Your task to perform on an android device: Go to eBay Image 0: 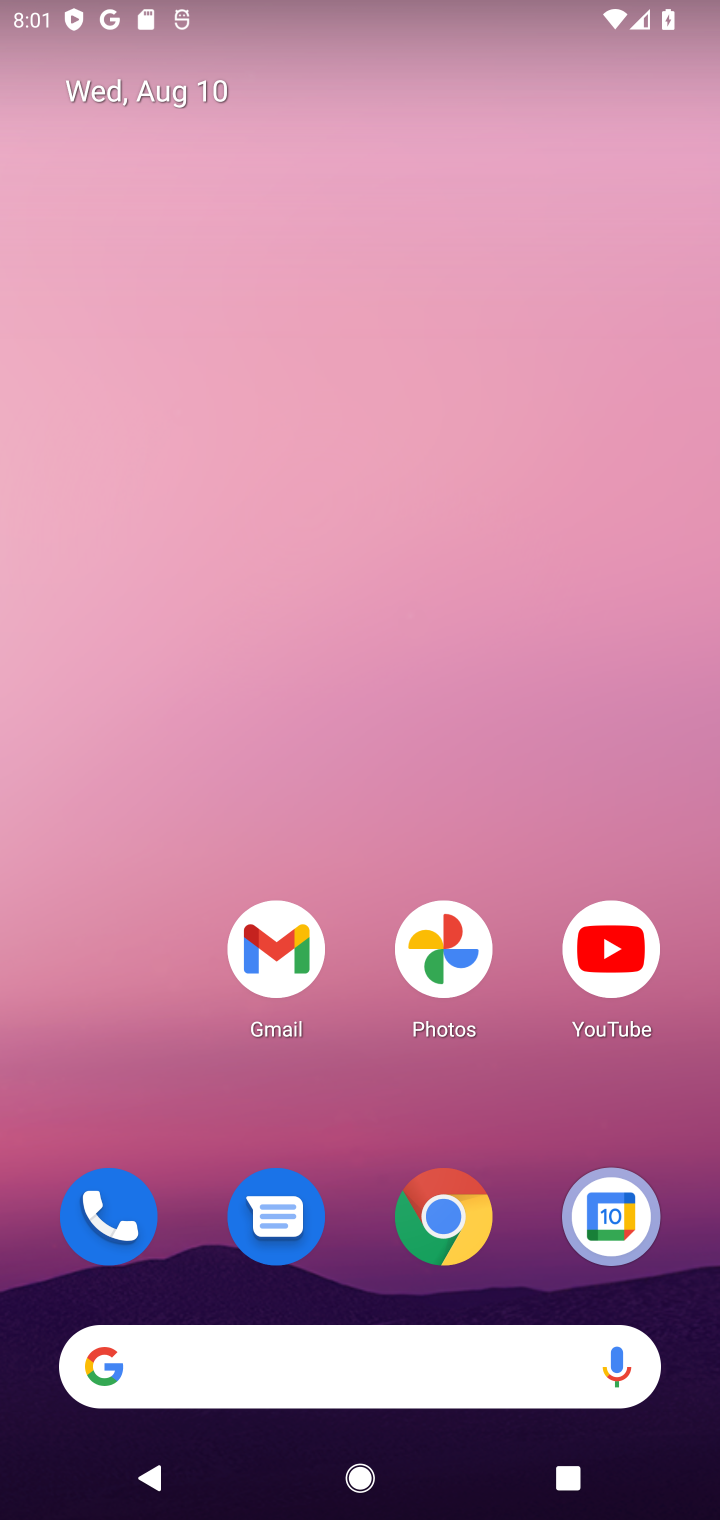
Step 0: click (442, 1222)
Your task to perform on an android device: Go to eBay Image 1: 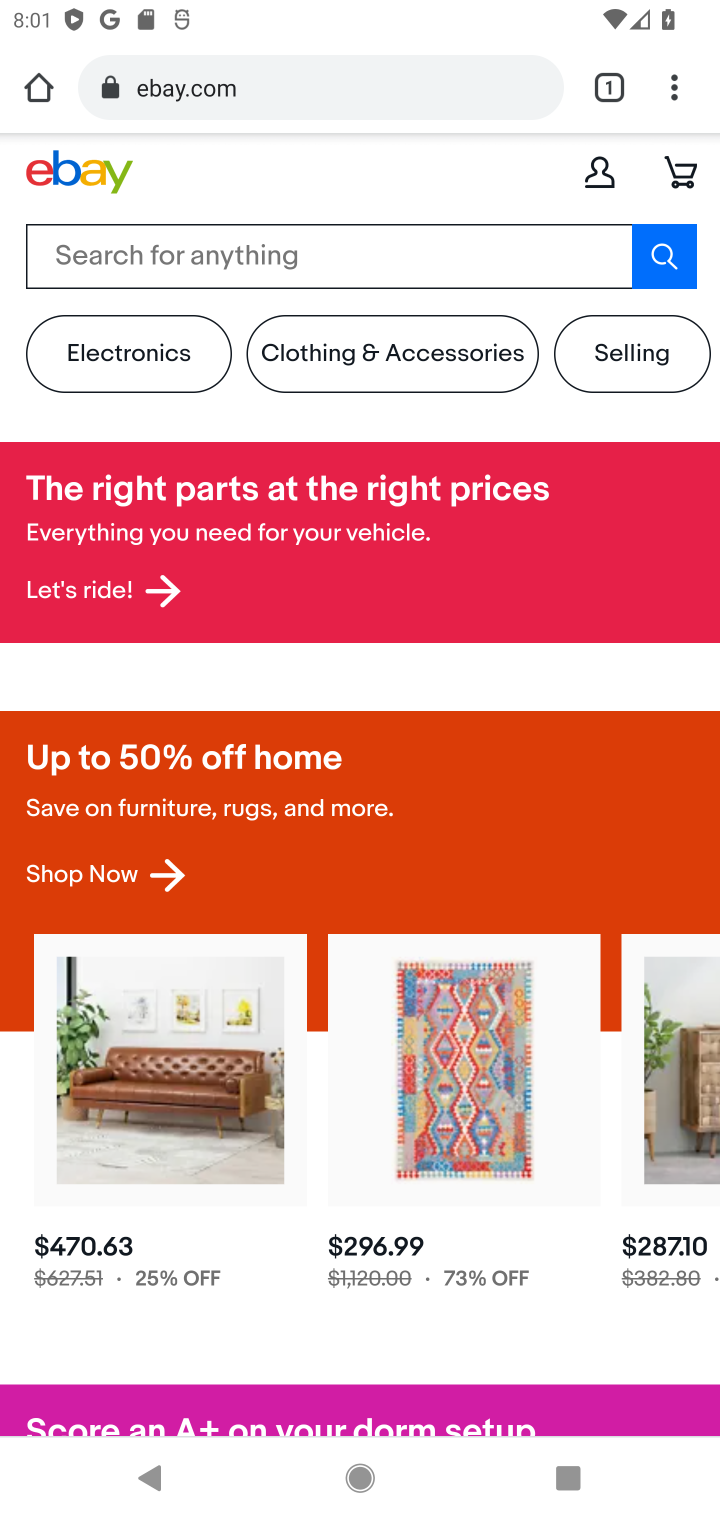
Step 1: task complete